Your task to perform on an android device: Do I have any events this weekend? Image 0: 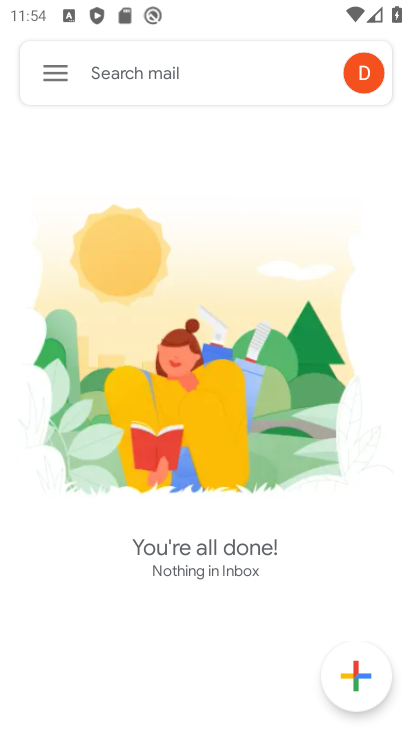
Step 0: press home button
Your task to perform on an android device: Do I have any events this weekend? Image 1: 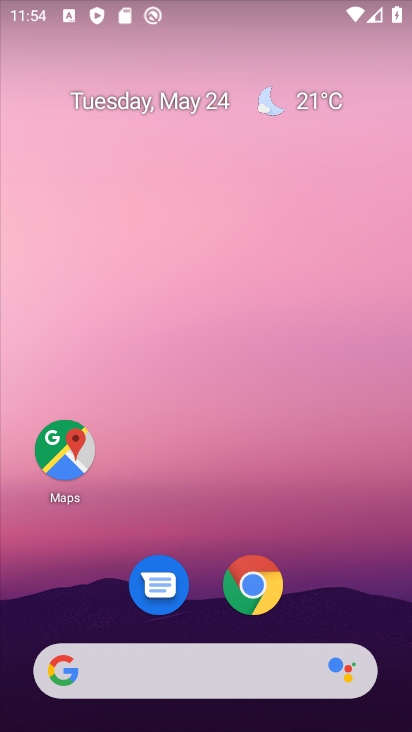
Step 1: drag from (207, 493) to (274, 20)
Your task to perform on an android device: Do I have any events this weekend? Image 2: 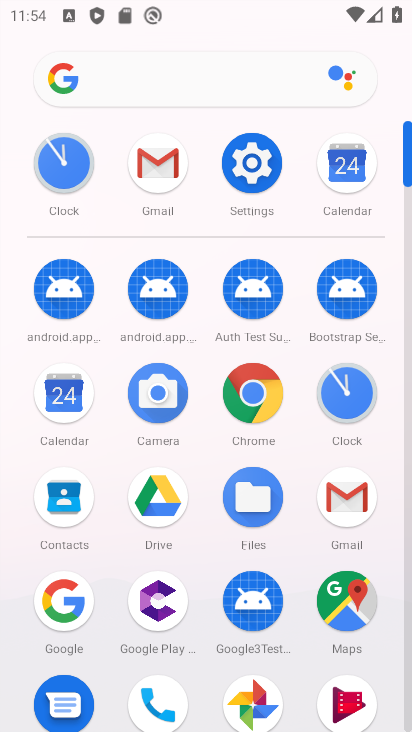
Step 2: click (329, 171)
Your task to perform on an android device: Do I have any events this weekend? Image 3: 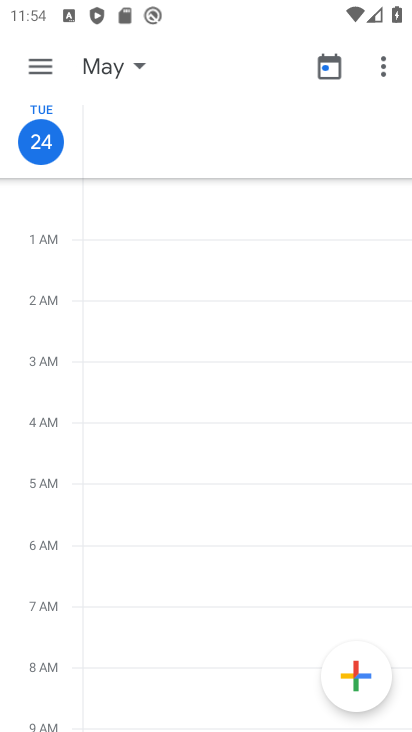
Step 3: click (46, 64)
Your task to perform on an android device: Do I have any events this weekend? Image 4: 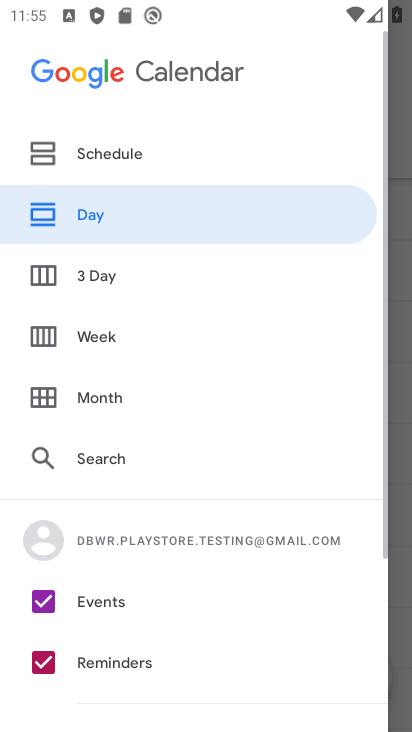
Step 4: click (93, 148)
Your task to perform on an android device: Do I have any events this weekend? Image 5: 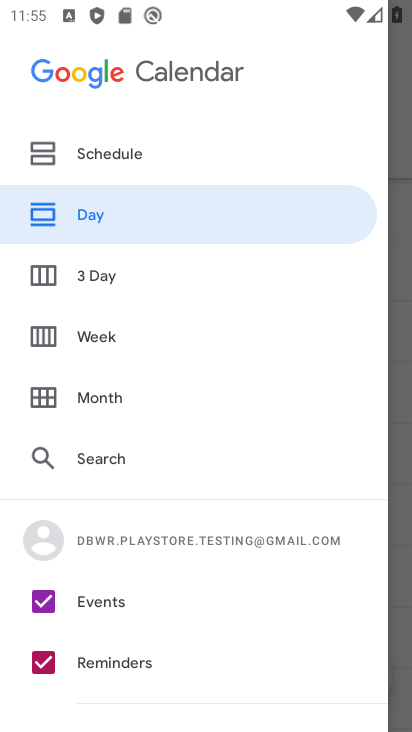
Step 5: click (45, 147)
Your task to perform on an android device: Do I have any events this weekend? Image 6: 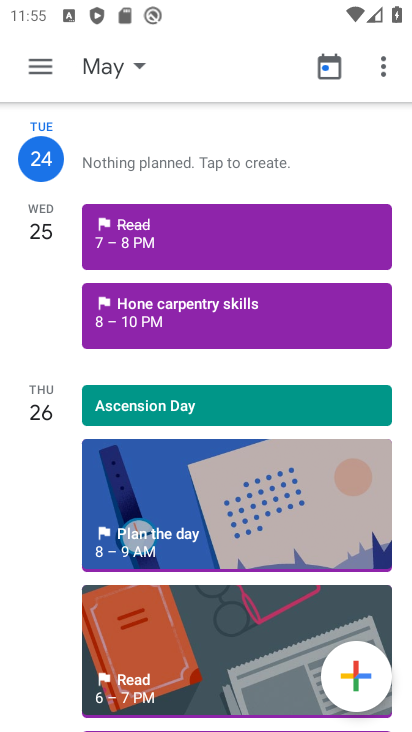
Step 6: task complete